Your task to perform on an android device: turn vacation reply on in the gmail app Image 0: 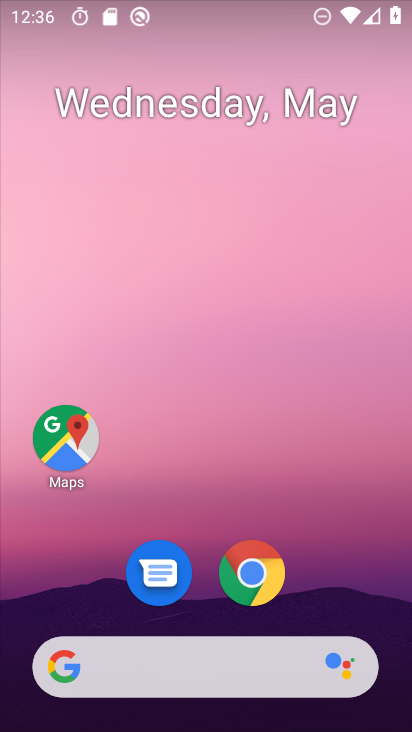
Step 0: drag from (302, 575) to (239, 59)
Your task to perform on an android device: turn vacation reply on in the gmail app Image 1: 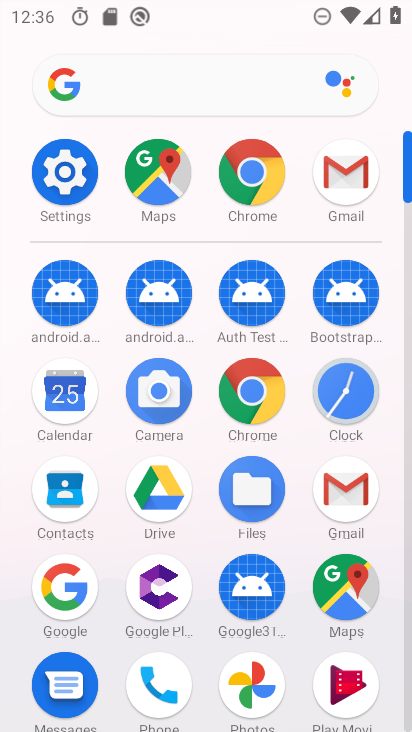
Step 1: drag from (25, 557) to (25, 271)
Your task to perform on an android device: turn vacation reply on in the gmail app Image 2: 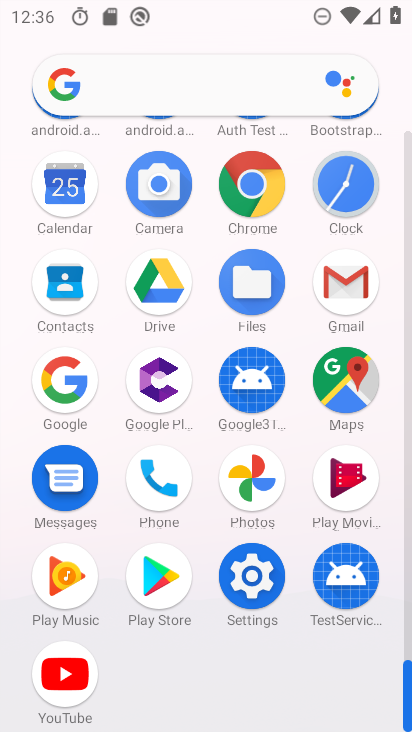
Step 2: click (348, 273)
Your task to perform on an android device: turn vacation reply on in the gmail app Image 3: 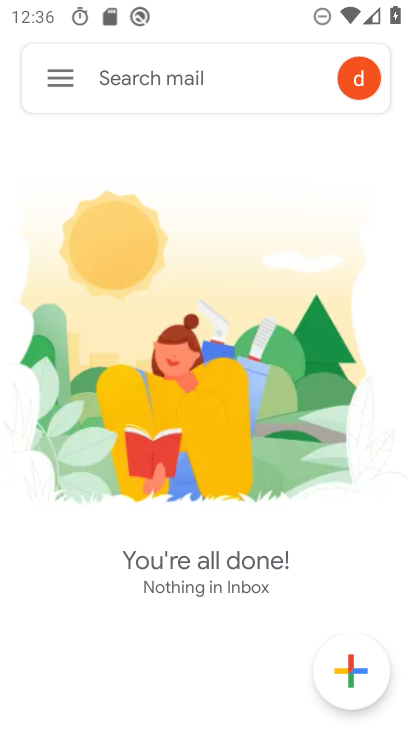
Step 3: click (71, 79)
Your task to perform on an android device: turn vacation reply on in the gmail app Image 4: 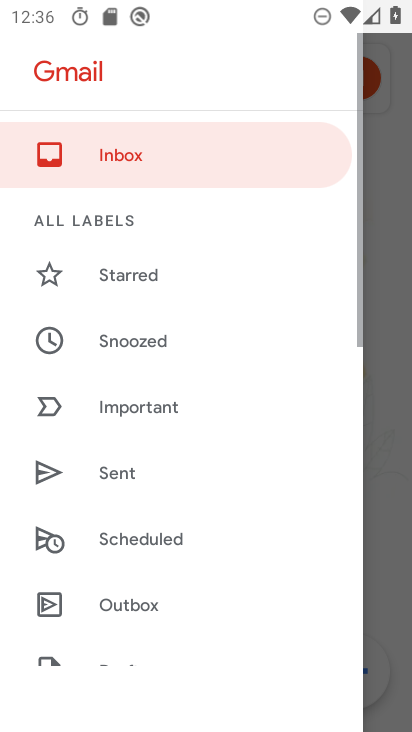
Step 4: drag from (171, 641) to (193, 193)
Your task to perform on an android device: turn vacation reply on in the gmail app Image 5: 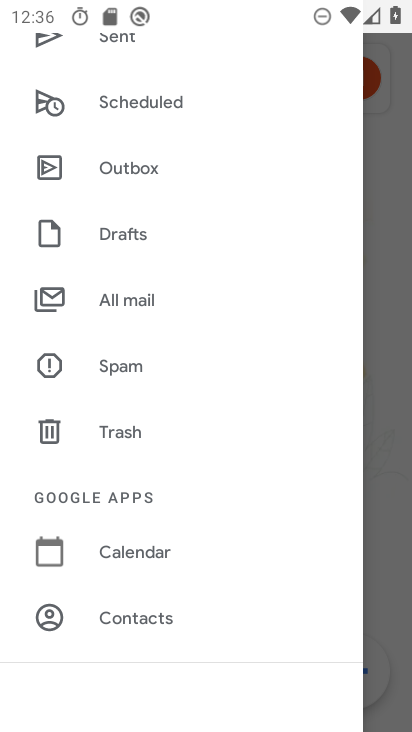
Step 5: drag from (164, 567) to (177, 193)
Your task to perform on an android device: turn vacation reply on in the gmail app Image 6: 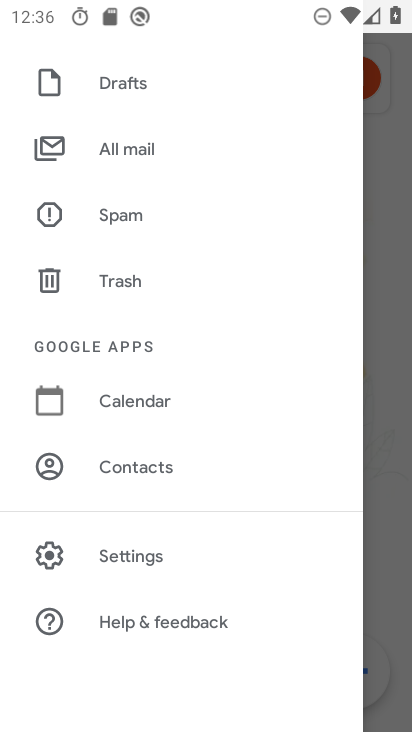
Step 6: click (143, 558)
Your task to perform on an android device: turn vacation reply on in the gmail app Image 7: 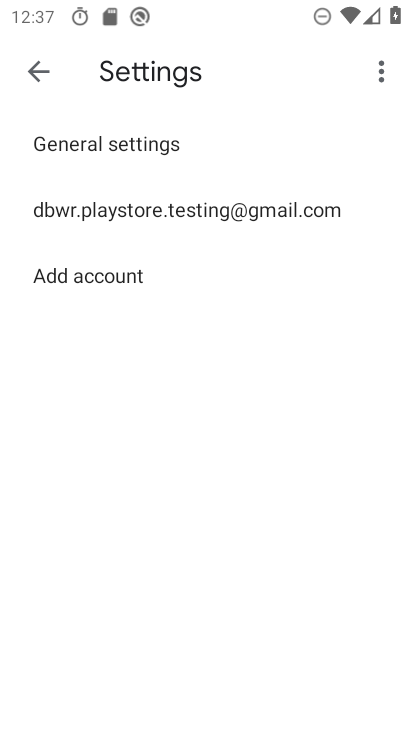
Step 7: click (215, 216)
Your task to perform on an android device: turn vacation reply on in the gmail app Image 8: 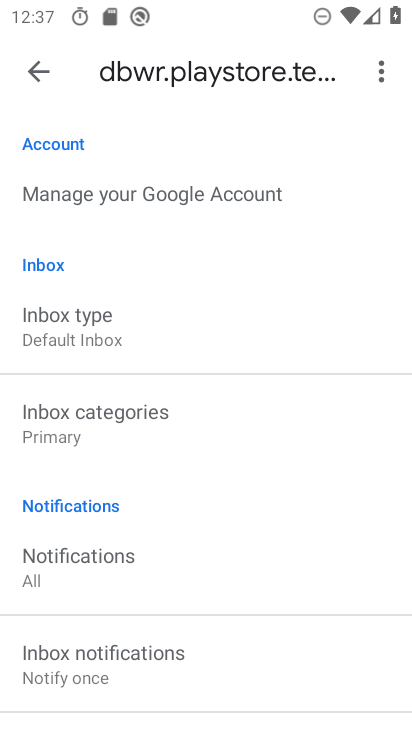
Step 8: task complete